Your task to perform on an android device: Open Chrome and go to settings Image 0: 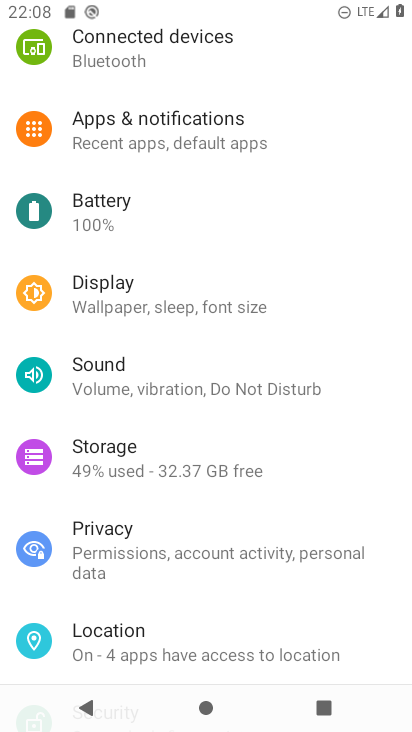
Step 0: press home button
Your task to perform on an android device: Open Chrome and go to settings Image 1: 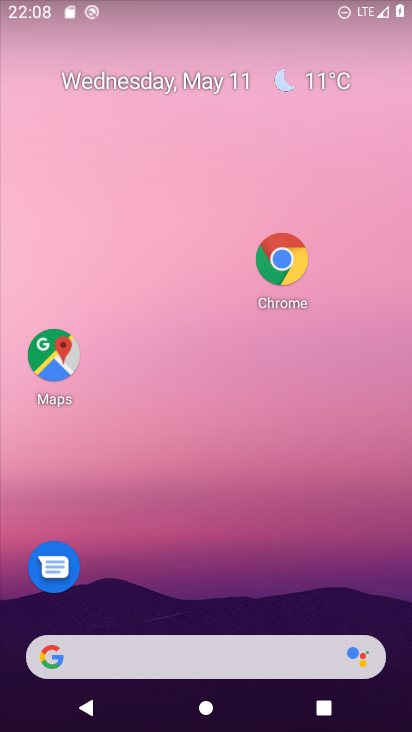
Step 1: click (279, 274)
Your task to perform on an android device: Open Chrome and go to settings Image 2: 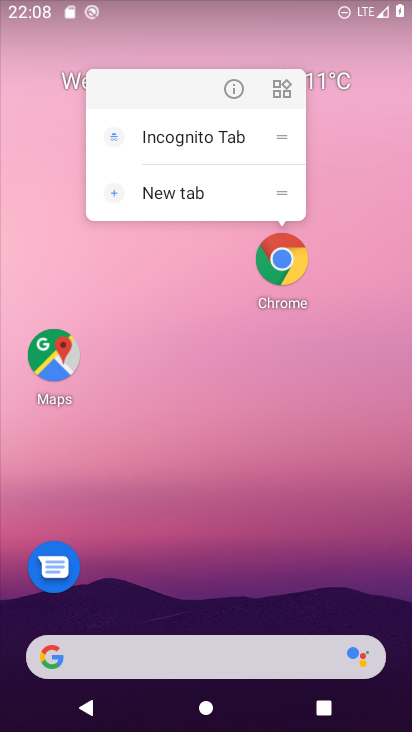
Step 2: click (284, 267)
Your task to perform on an android device: Open Chrome and go to settings Image 3: 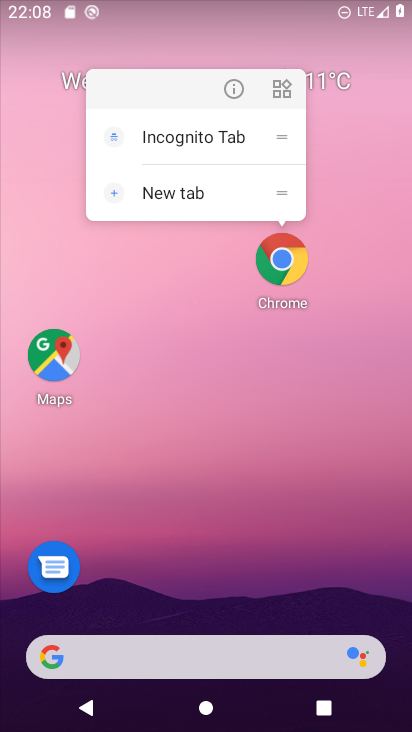
Step 3: click (287, 257)
Your task to perform on an android device: Open Chrome and go to settings Image 4: 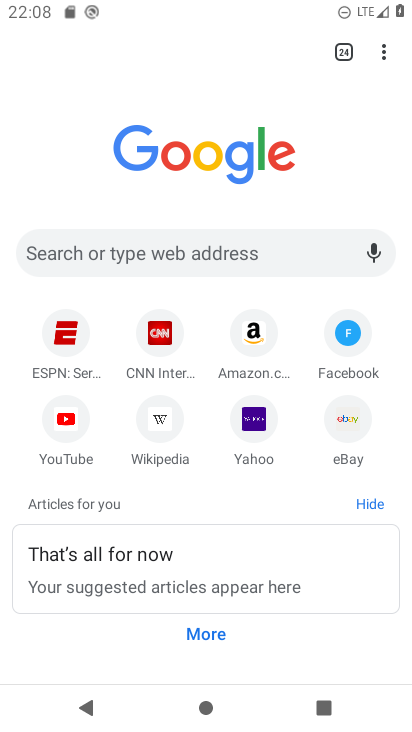
Step 4: task complete